Your task to perform on an android device: What's on my calendar today? Image 0: 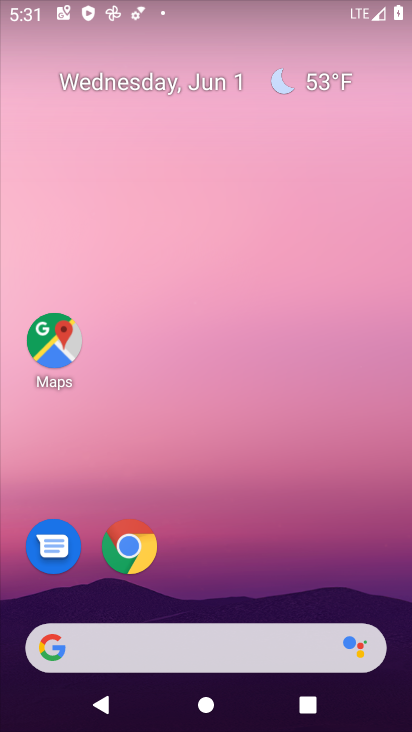
Step 0: drag from (304, 499) to (212, 18)
Your task to perform on an android device: What's on my calendar today? Image 1: 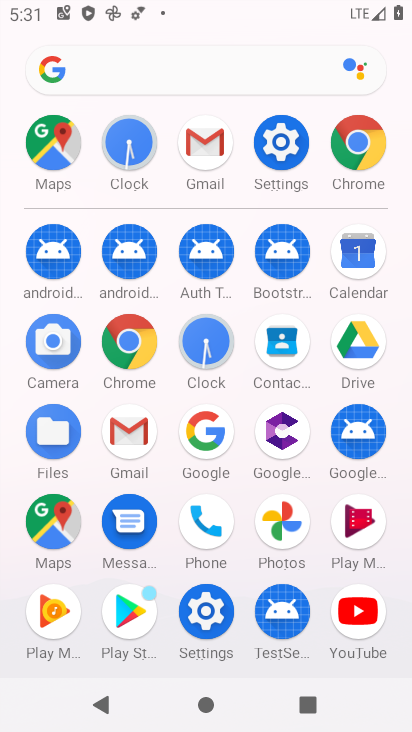
Step 1: drag from (19, 526) to (14, 224)
Your task to perform on an android device: What's on my calendar today? Image 2: 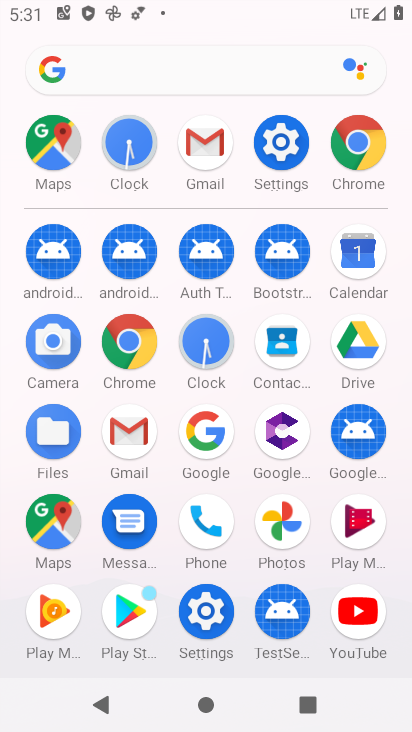
Step 2: click (359, 245)
Your task to perform on an android device: What's on my calendar today? Image 3: 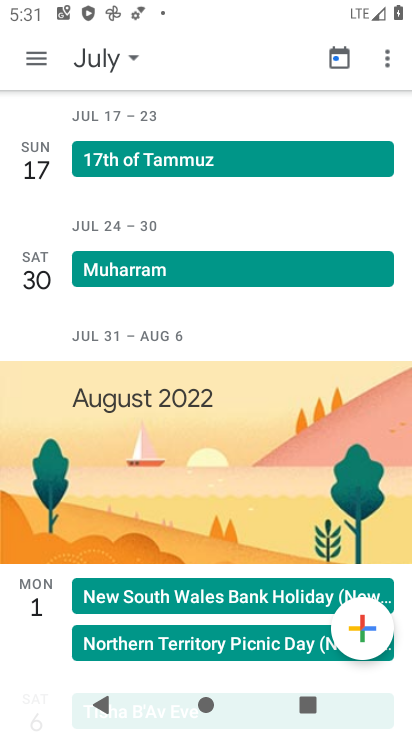
Step 3: click (30, 52)
Your task to perform on an android device: What's on my calendar today? Image 4: 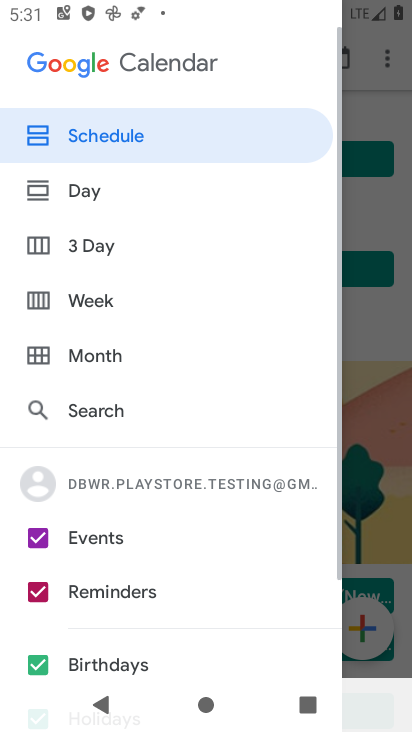
Step 4: click (102, 182)
Your task to perform on an android device: What's on my calendar today? Image 5: 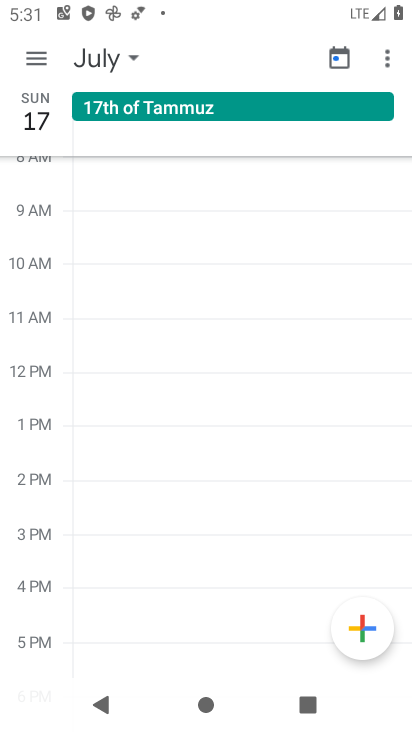
Step 5: click (337, 50)
Your task to perform on an android device: What's on my calendar today? Image 6: 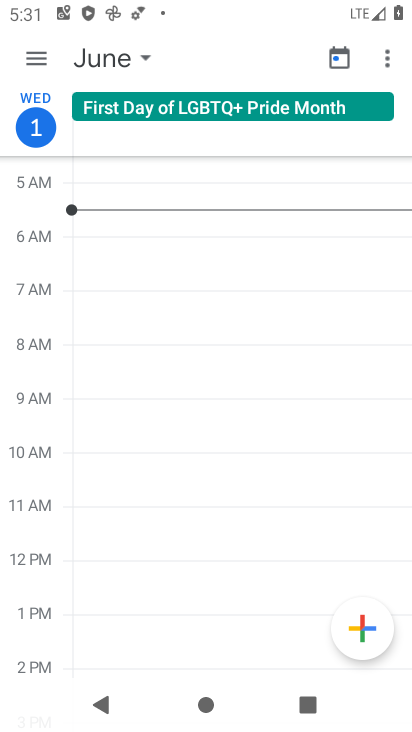
Step 6: task complete